Your task to perform on an android device: What's the weather going to be this weekend? Image 0: 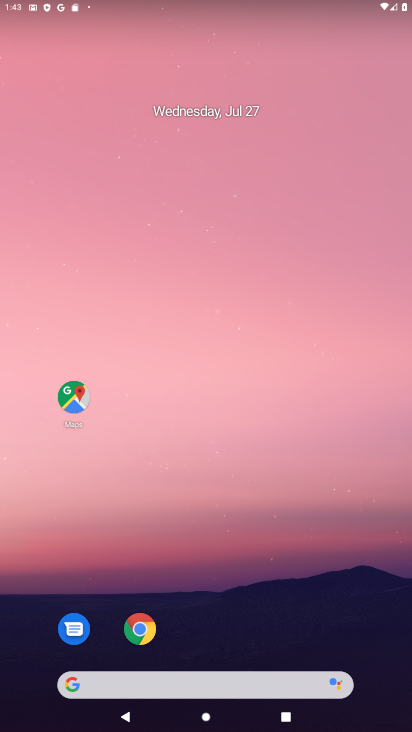
Step 0: drag from (300, 626) to (223, 258)
Your task to perform on an android device: What's the weather going to be this weekend? Image 1: 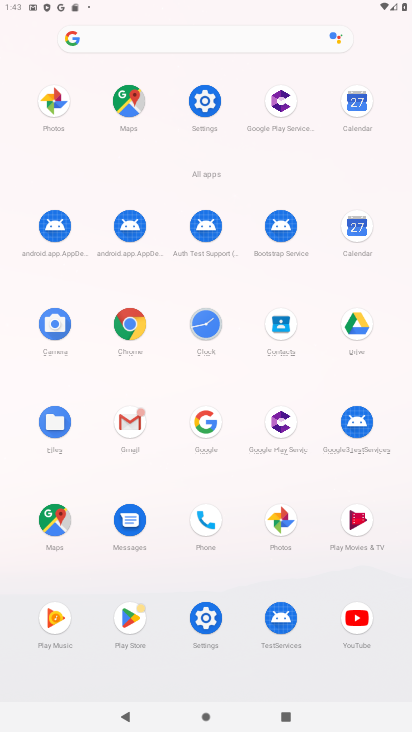
Step 1: click (354, 120)
Your task to perform on an android device: What's the weather going to be this weekend? Image 2: 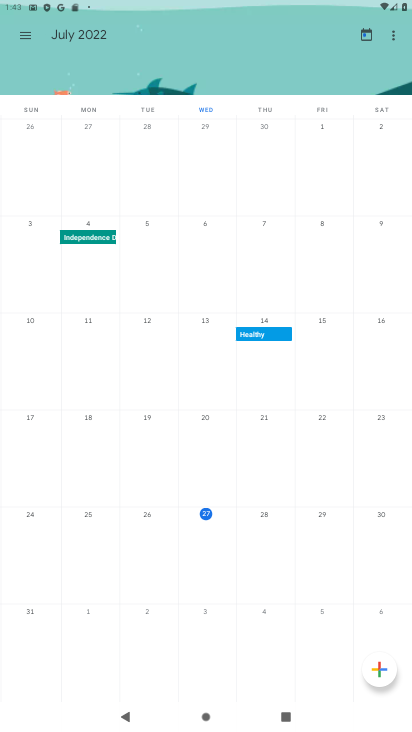
Step 2: task complete